Your task to perform on an android device: Search for vegetarian restaurants on Maps Image 0: 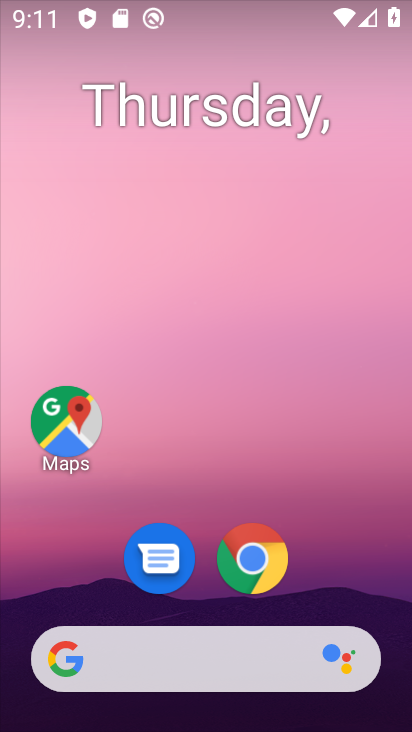
Step 0: click (66, 423)
Your task to perform on an android device: Search for vegetarian restaurants on Maps Image 1: 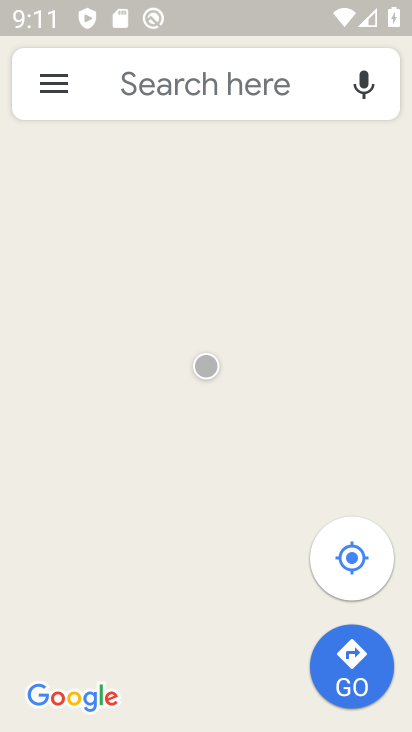
Step 1: click (171, 80)
Your task to perform on an android device: Search for vegetarian restaurants on Maps Image 2: 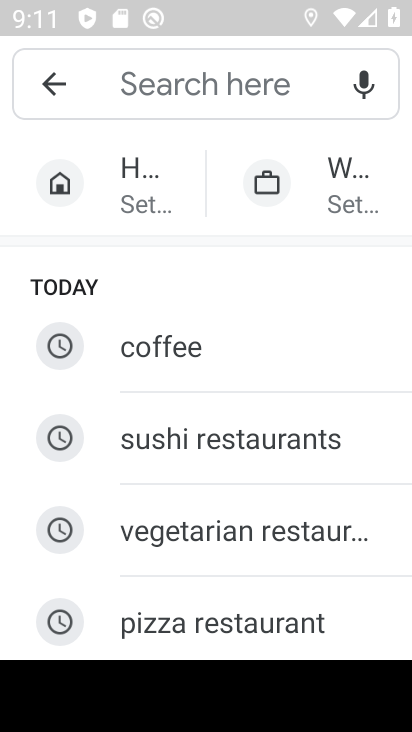
Step 2: type "vegetarian restaurants"
Your task to perform on an android device: Search for vegetarian restaurants on Maps Image 3: 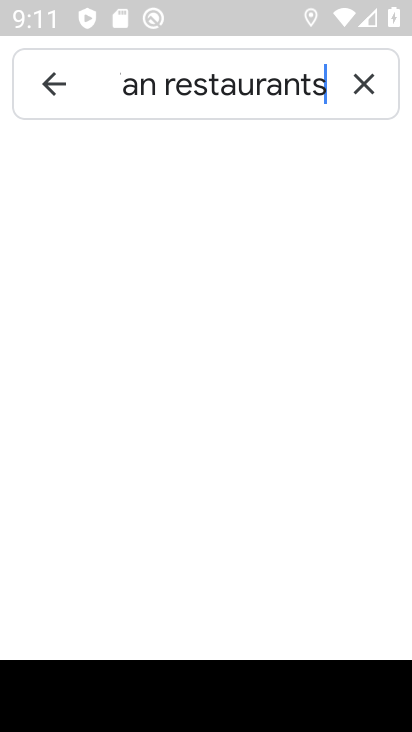
Step 3: type ""
Your task to perform on an android device: Search for vegetarian restaurants on Maps Image 4: 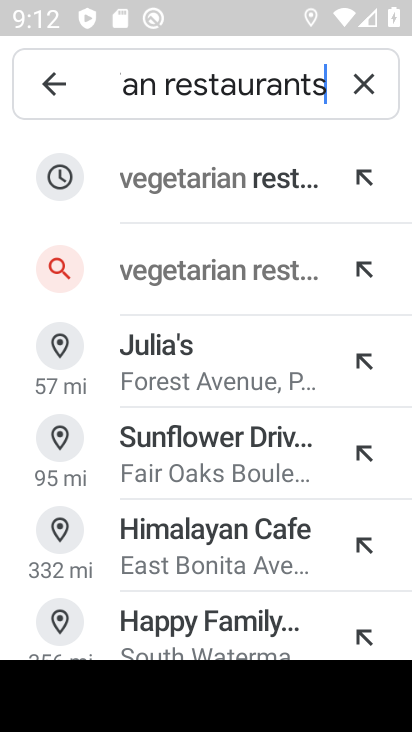
Step 4: click (233, 173)
Your task to perform on an android device: Search for vegetarian restaurants on Maps Image 5: 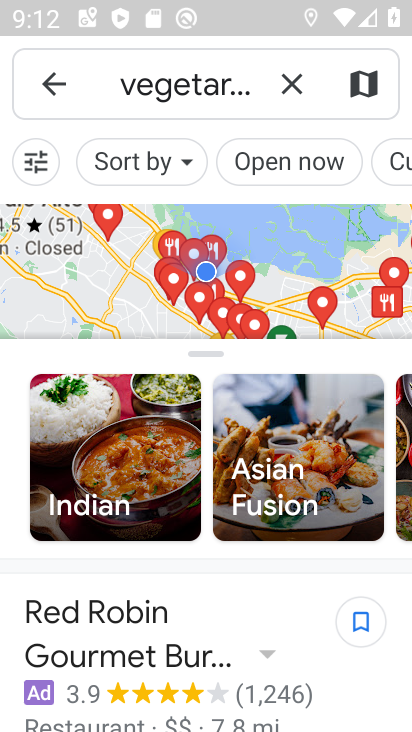
Step 5: task complete